Your task to perform on an android device: Open display settings Image 0: 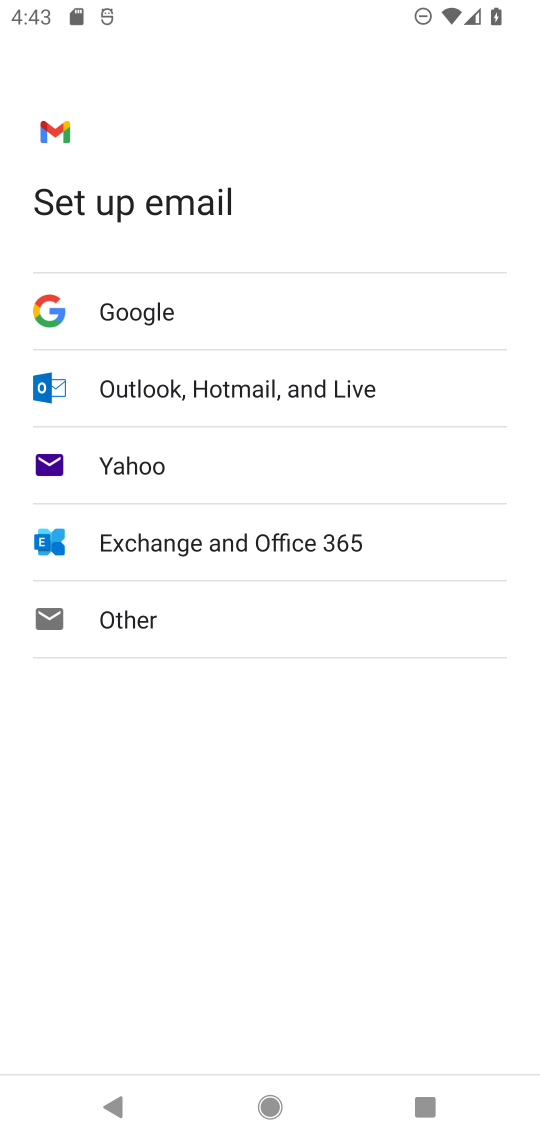
Step 0: press home button
Your task to perform on an android device: Open display settings Image 1: 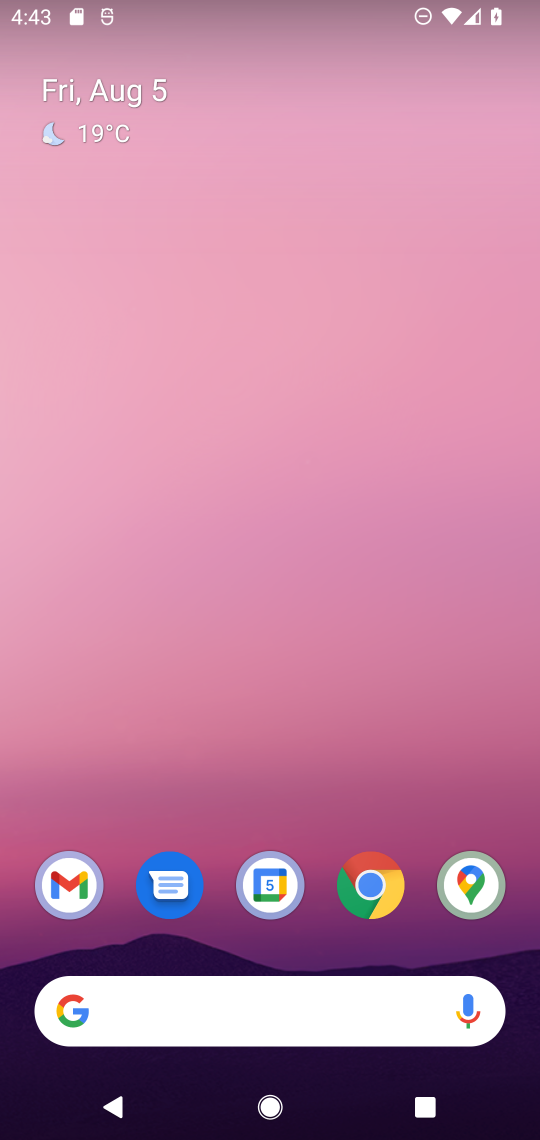
Step 1: drag from (325, 741) to (307, 0)
Your task to perform on an android device: Open display settings Image 2: 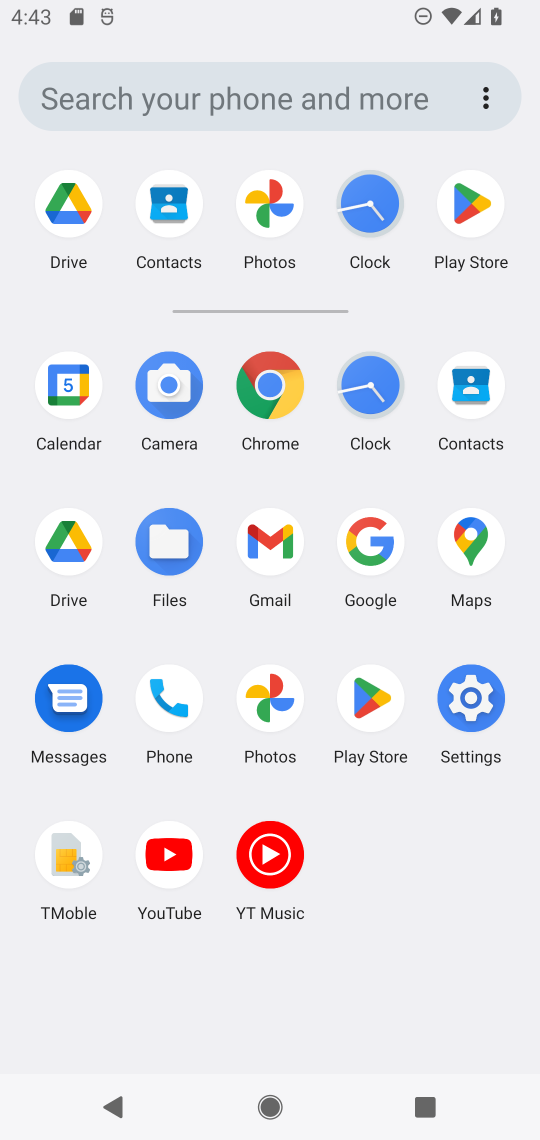
Step 2: click (475, 703)
Your task to perform on an android device: Open display settings Image 3: 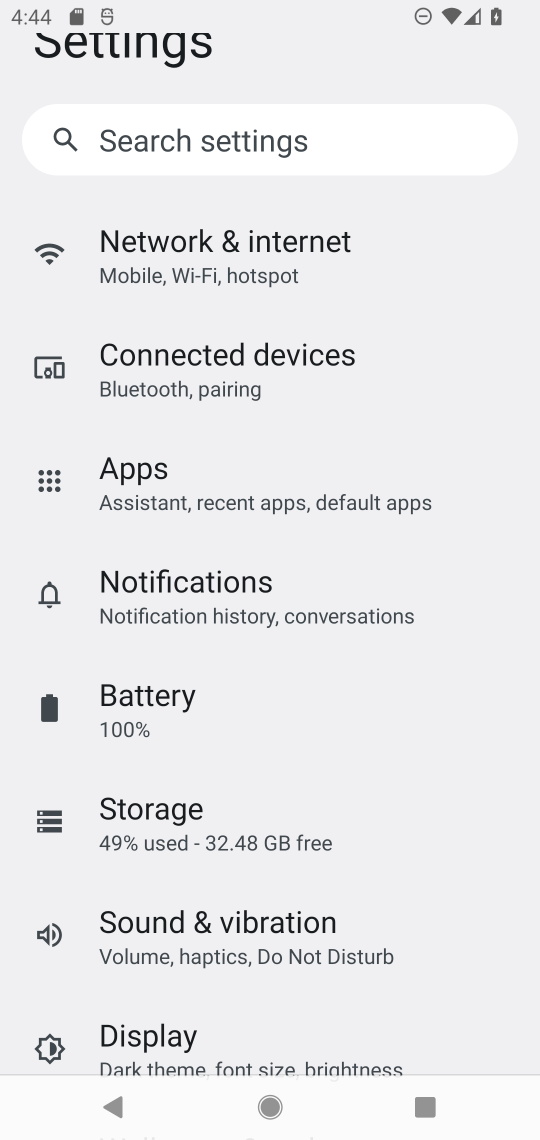
Step 3: click (193, 1036)
Your task to perform on an android device: Open display settings Image 4: 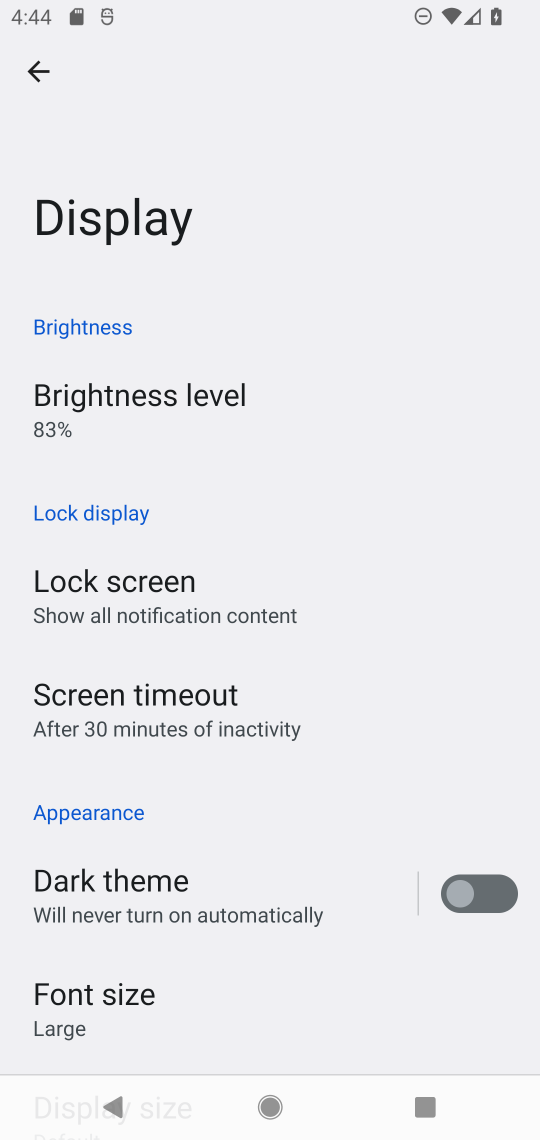
Step 4: task complete